Your task to perform on an android device: turn on data saver in the chrome app Image 0: 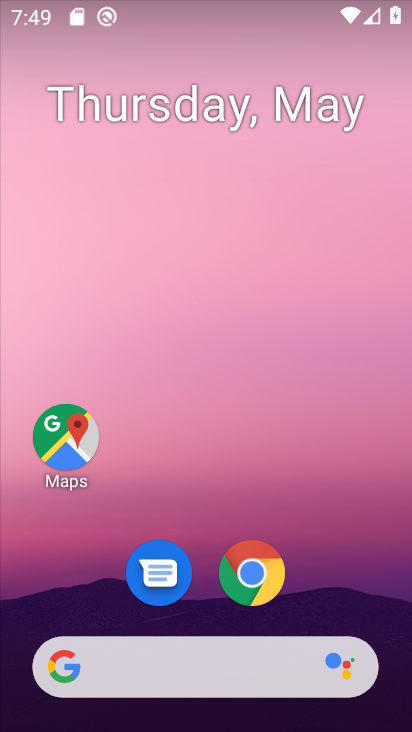
Step 0: click (230, 575)
Your task to perform on an android device: turn on data saver in the chrome app Image 1: 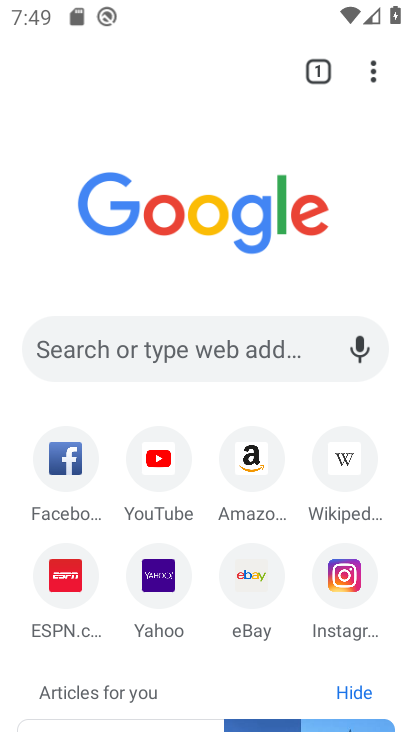
Step 1: click (247, 574)
Your task to perform on an android device: turn on data saver in the chrome app Image 2: 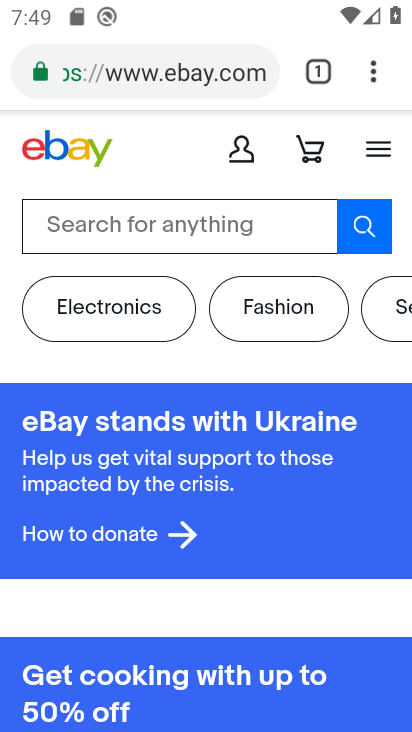
Step 2: press back button
Your task to perform on an android device: turn on data saver in the chrome app Image 3: 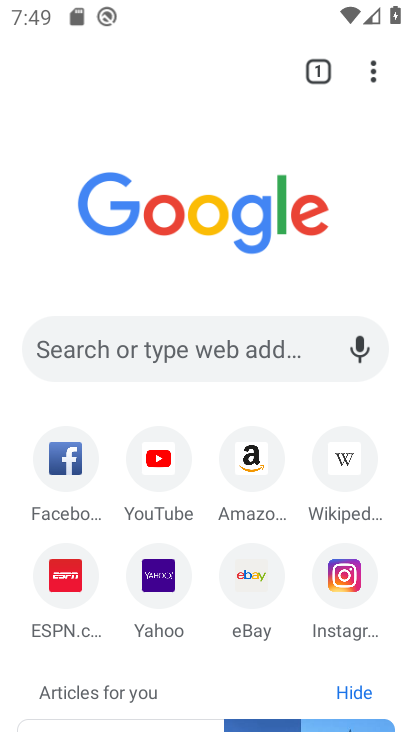
Step 3: click (389, 81)
Your task to perform on an android device: turn on data saver in the chrome app Image 4: 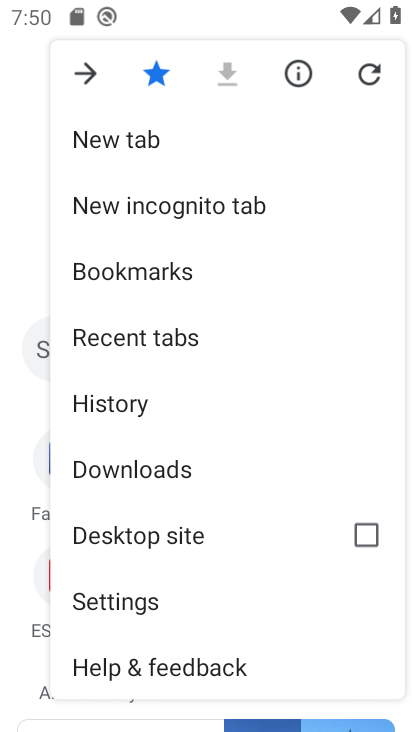
Step 4: click (129, 597)
Your task to perform on an android device: turn on data saver in the chrome app Image 5: 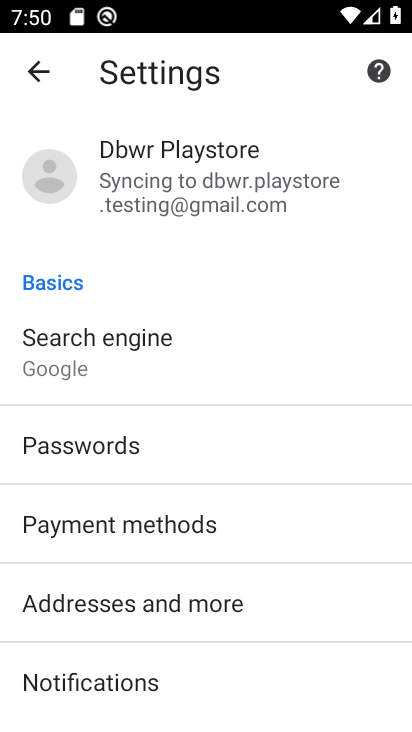
Step 5: drag from (263, 651) to (271, 142)
Your task to perform on an android device: turn on data saver in the chrome app Image 6: 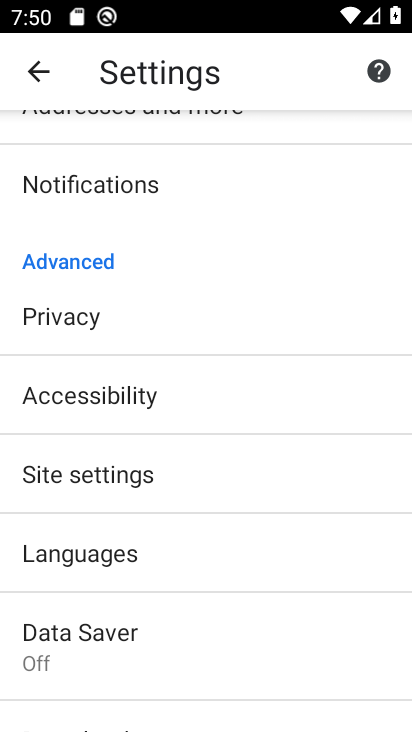
Step 6: click (117, 626)
Your task to perform on an android device: turn on data saver in the chrome app Image 7: 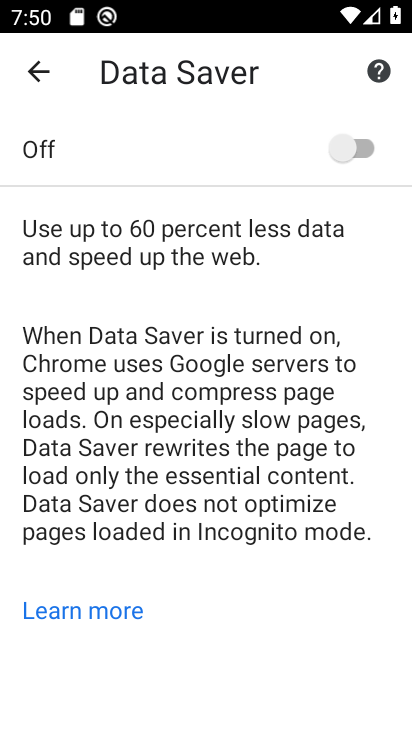
Step 7: click (358, 146)
Your task to perform on an android device: turn on data saver in the chrome app Image 8: 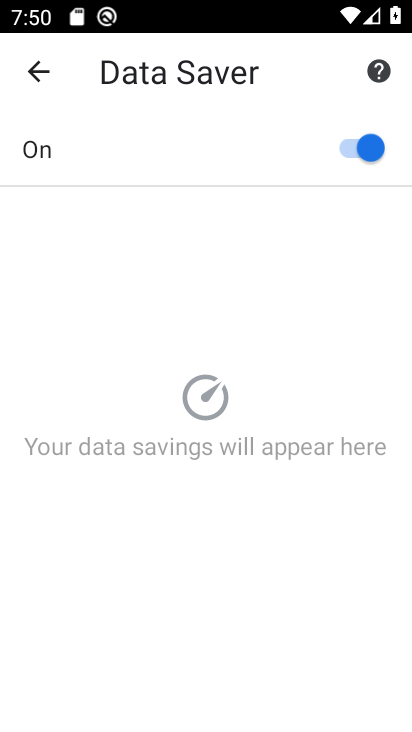
Step 8: task complete